Your task to perform on an android device: turn off improve location accuracy Image 0: 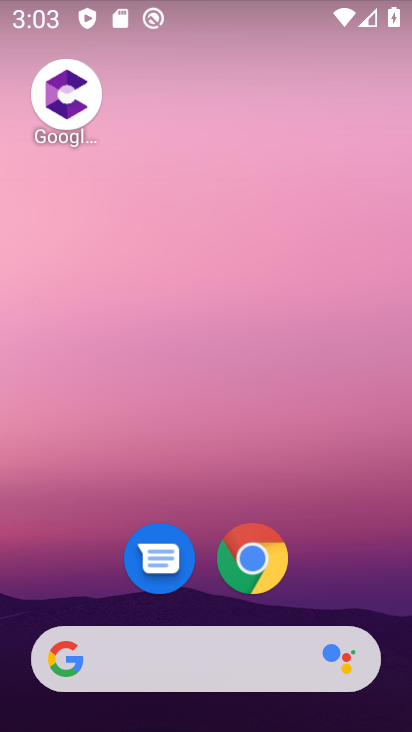
Step 0: drag from (330, 580) to (217, 180)
Your task to perform on an android device: turn off improve location accuracy Image 1: 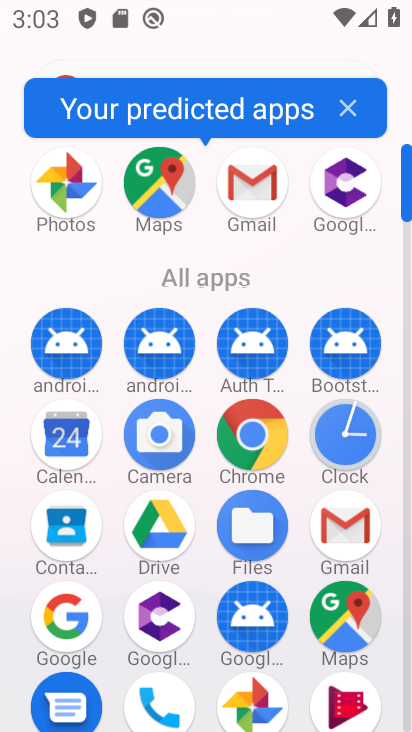
Step 1: drag from (112, 493) to (108, 264)
Your task to perform on an android device: turn off improve location accuracy Image 2: 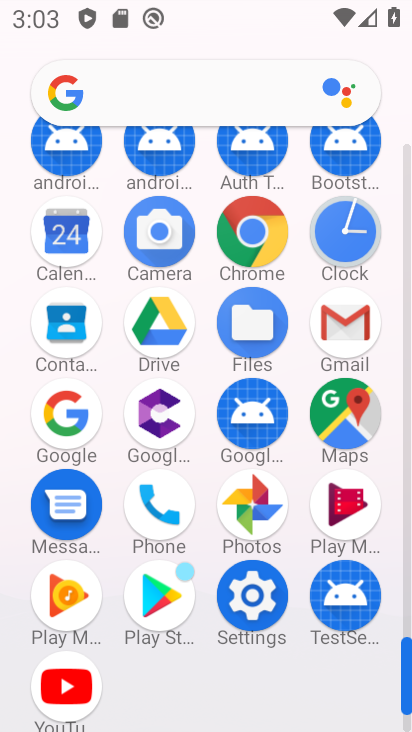
Step 2: click (252, 593)
Your task to perform on an android device: turn off improve location accuracy Image 3: 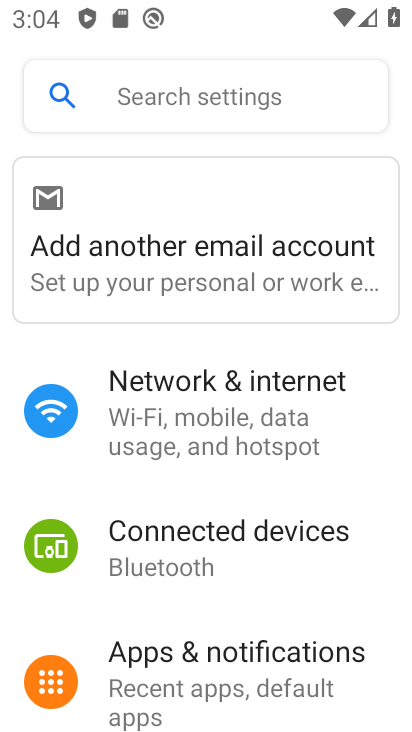
Step 3: drag from (208, 608) to (274, 476)
Your task to perform on an android device: turn off improve location accuracy Image 4: 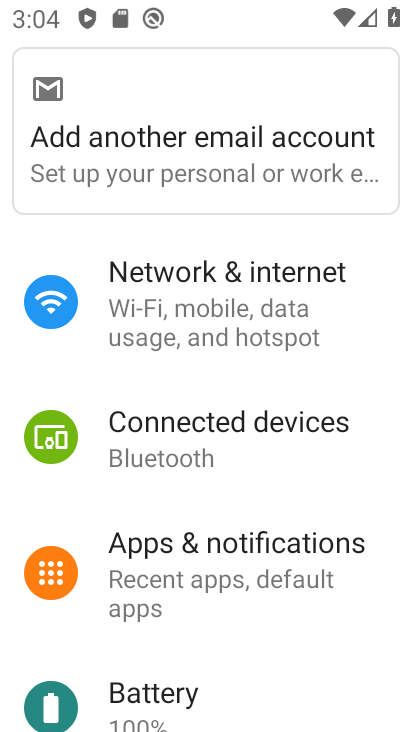
Step 4: drag from (190, 641) to (274, 530)
Your task to perform on an android device: turn off improve location accuracy Image 5: 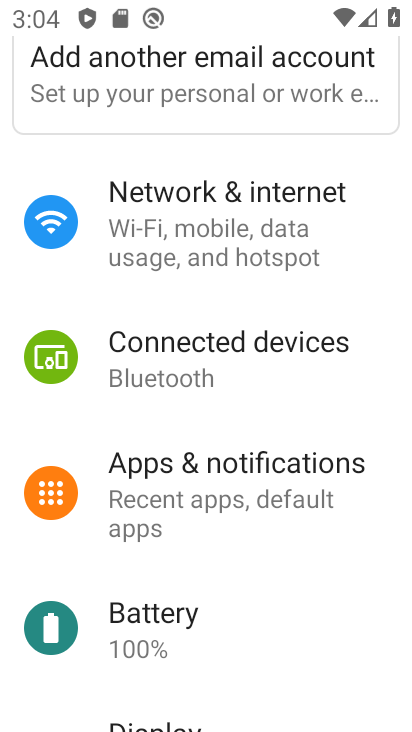
Step 5: drag from (171, 558) to (258, 397)
Your task to perform on an android device: turn off improve location accuracy Image 6: 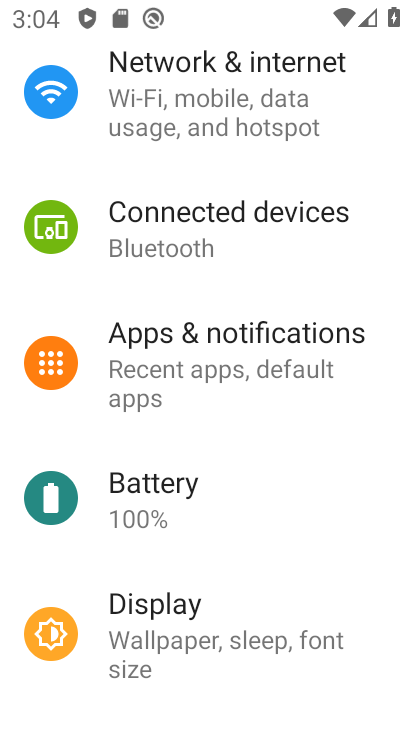
Step 6: drag from (142, 560) to (229, 434)
Your task to perform on an android device: turn off improve location accuracy Image 7: 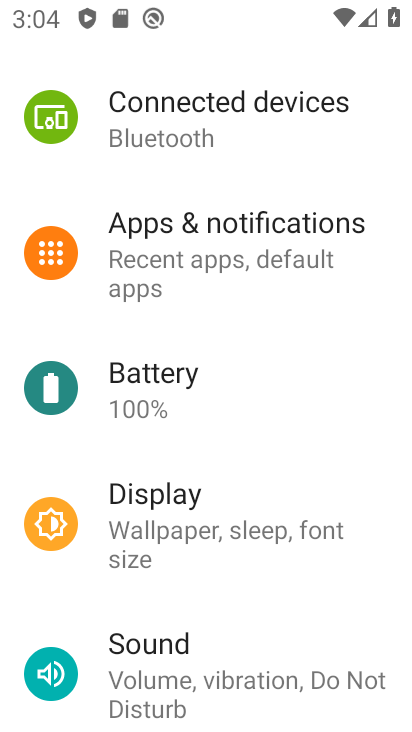
Step 7: drag from (143, 593) to (216, 451)
Your task to perform on an android device: turn off improve location accuracy Image 8: 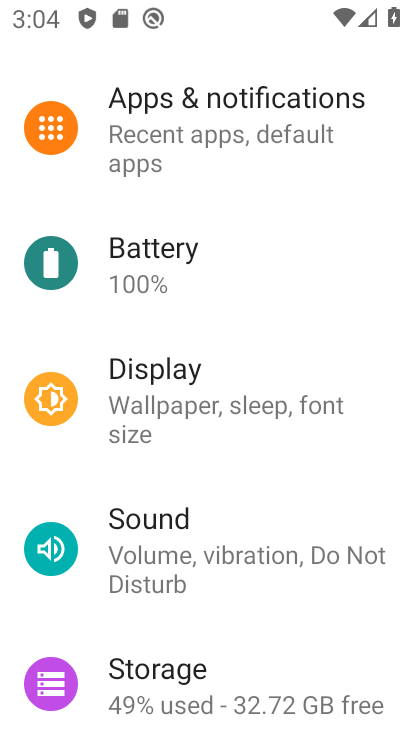
Step 8: drag from (136, 615) to (233, 450)
Your task to perform on an android device: turn off improve location accuracy Image 9: 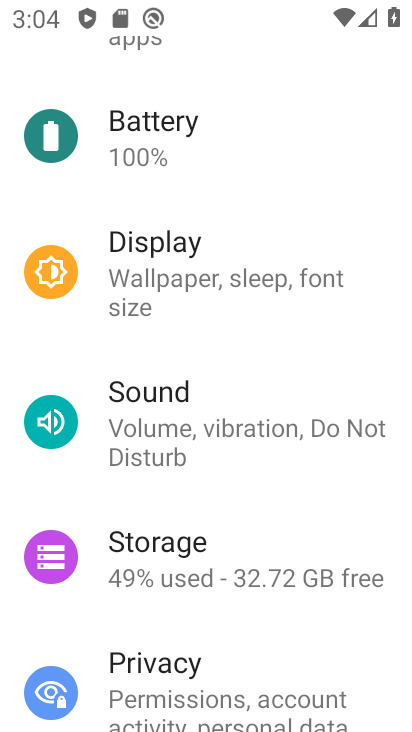
Step 9: drag from (150, 547) to (206, 420)
Your task to perform on an android device: turn off improve location accuracy Image 10: 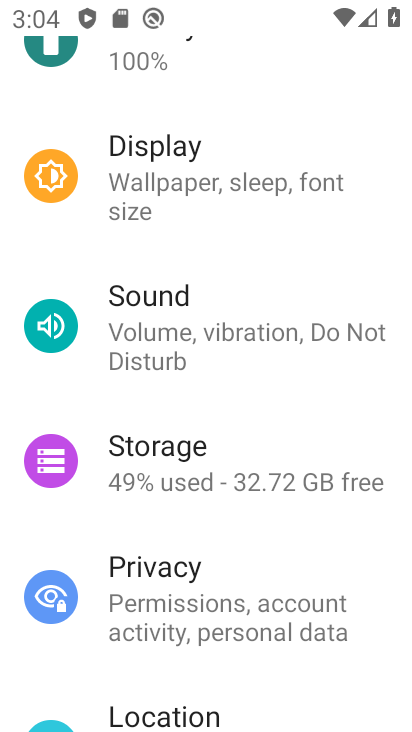
Step 10: drag from (119, 657) to (320, 377)
Your task to perform on an android device: turn off improve location accuracy Image 11: 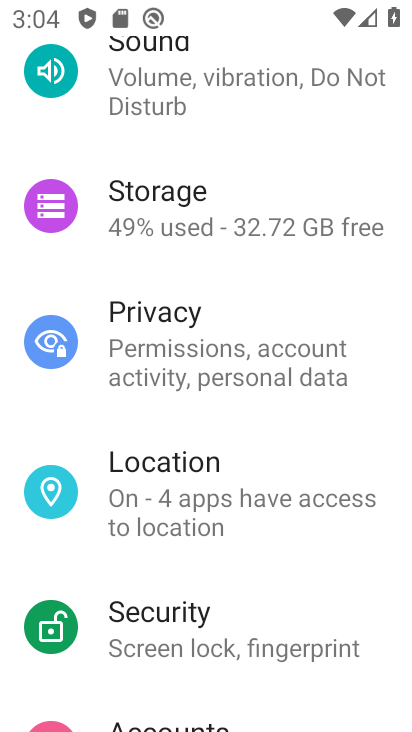
Step 11: click (208, 506)
Your task to perform on an android device: turn off improve location accuracy Image 12: 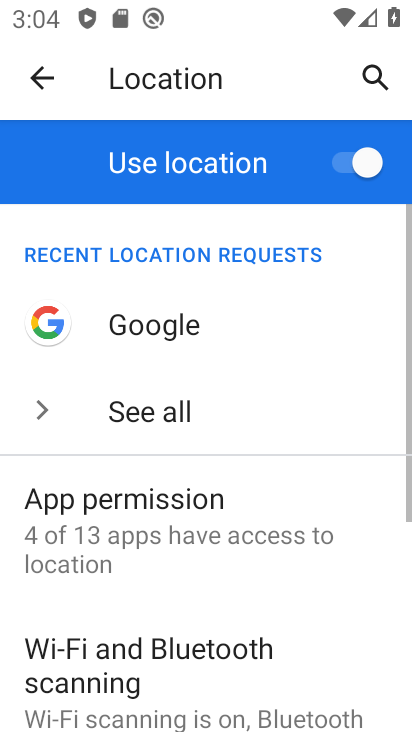
Step 12: drag from (138, 601) to (285, 278)
Your task to perform on an android device: turn off improve location accuracy Image 13: 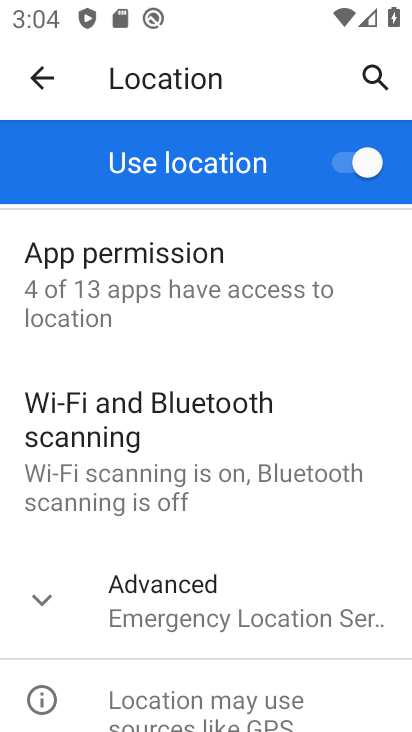
Step 13: click (190, 609)
Your task to perform on an android device: turn off improve location accuracy Image 14: 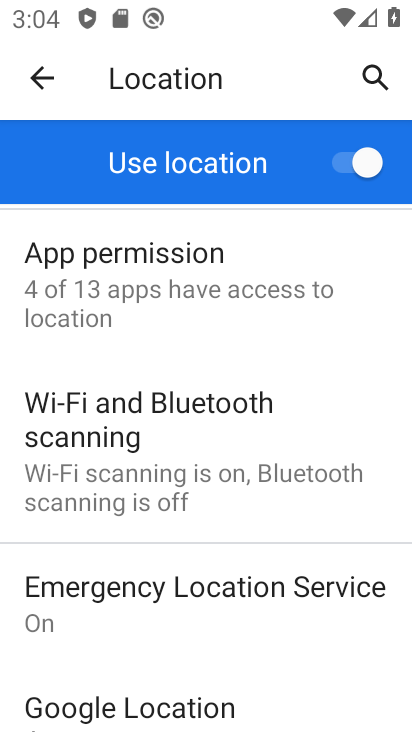
Step 14: drag from (155, 634) to (279, 485)
Your task to perform on an android device: turn off improve location accuracy Image 15: 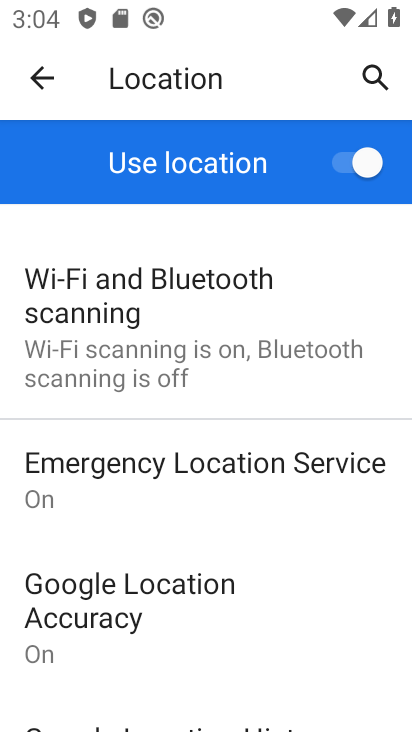
Step 15: click (135, 610)
Your task to perform on an android device: turn off improve location accuracy Image 16: 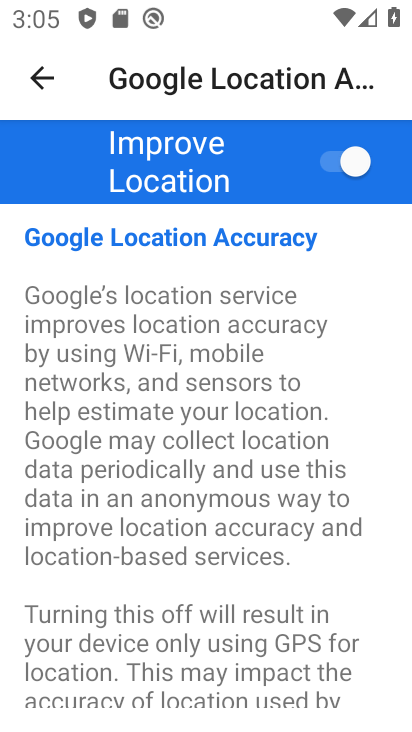
Step 16: click (335, 163)
Your task to perform on an android device: turn off improve location accuracy Image 17: 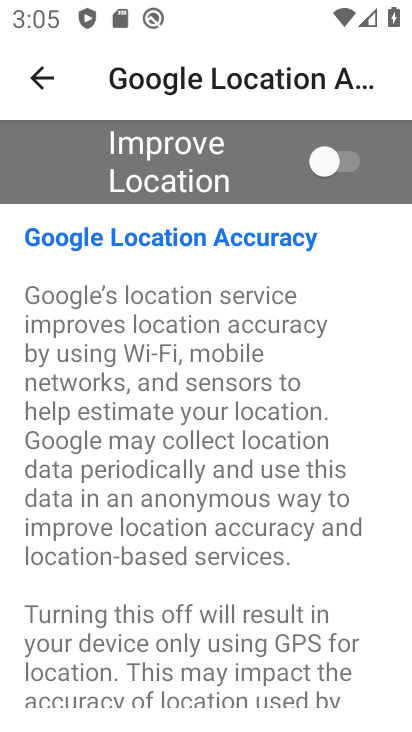
Step 17: task complete